Your task to perform on an android device: Go to settings Image 0: 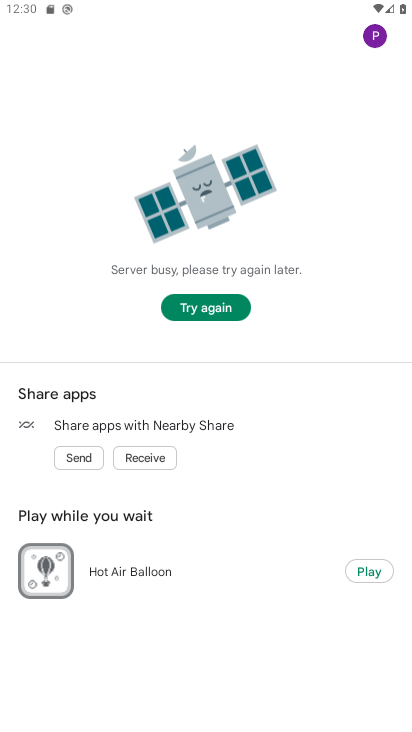
Step 0: press home button
Your task to perform on an android device: Go to settings Image 1: 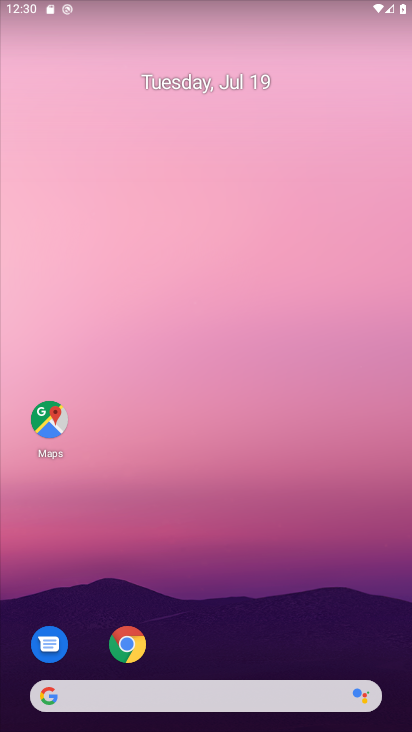
Step 1: drag from (285, 654) to (208, 116)
Your task to perform on an android device: Go to settings Image 2: 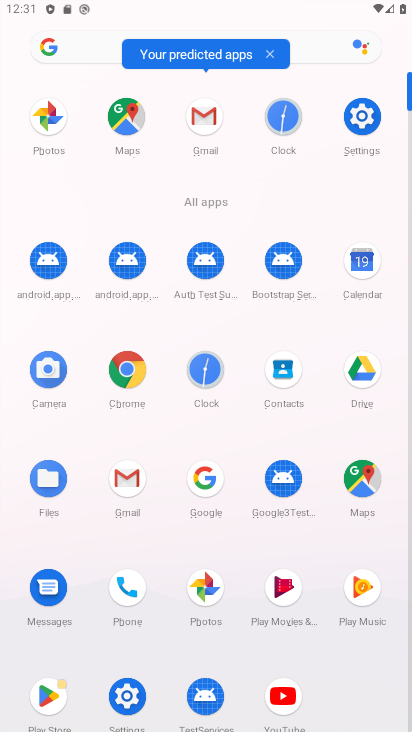
Step 2: click (365, 120)
Your task to perform on an android device: Go to settings Image 3: 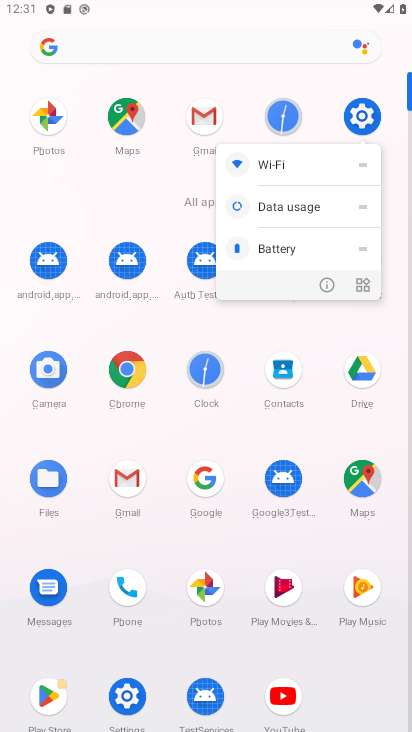
Step 3: click (365, 120)
Your task to perform on an android device: Go to settings Image 4: 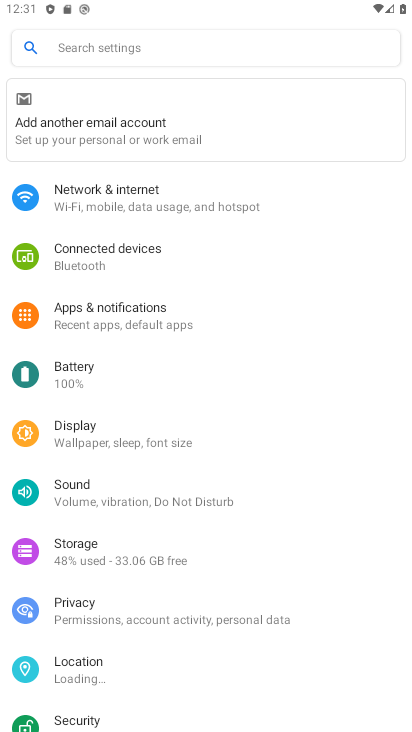
Step 4: task complete